Your task to perform on an android device: Show me recent news Image 0: 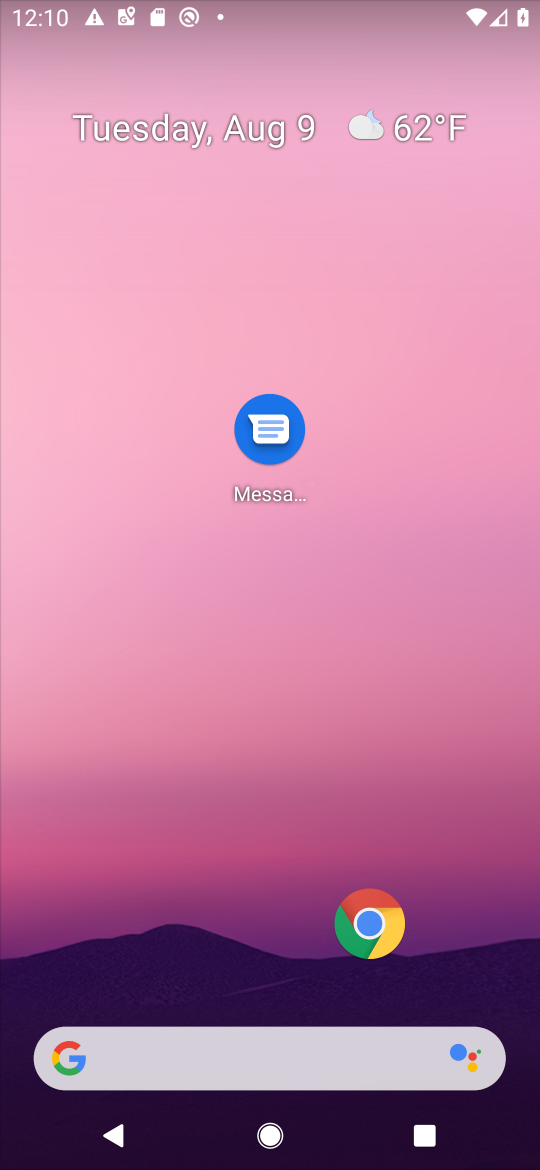
Step 0: click (186, 1062)
Your task to perform on an android device: Show me recent news Image 1: 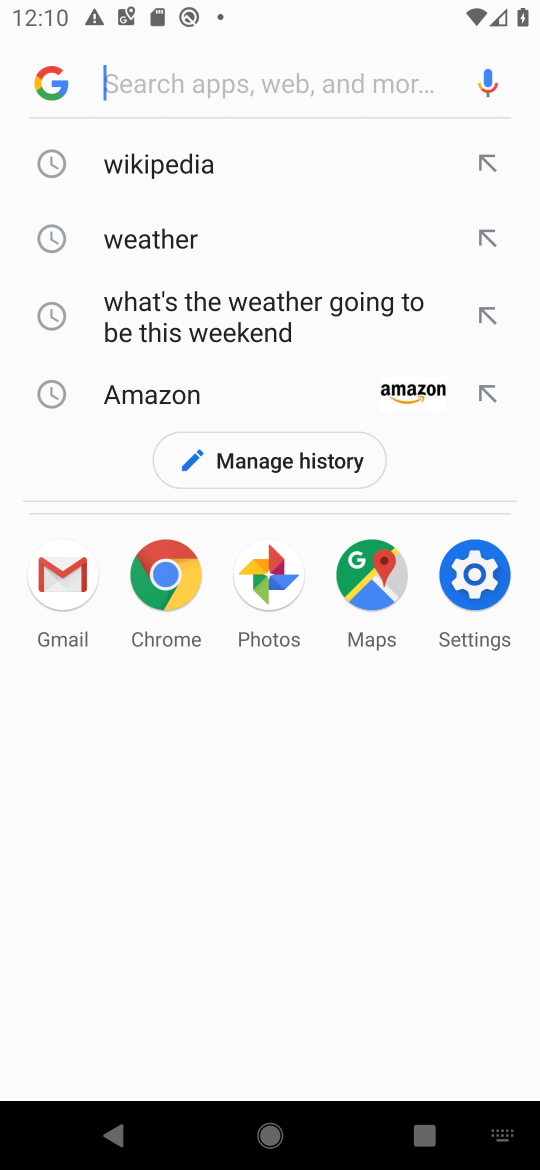
Step 1: type "Show me recent news"
Your task to perform on an android device: Show me recent news Image 2: 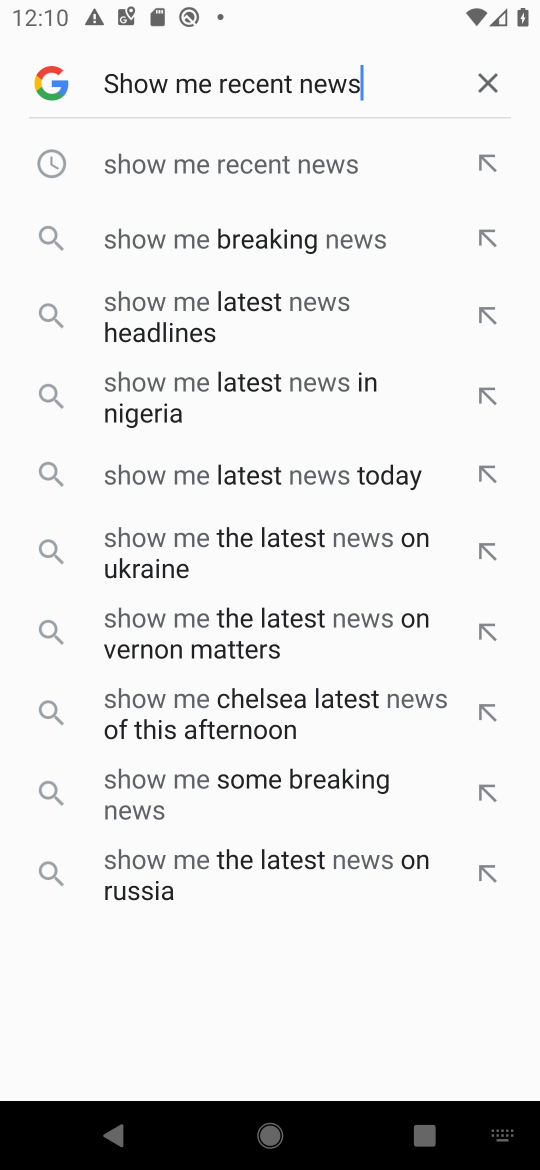
Step 2: click (232, 157)
Your task to perform on an android device: Show me recent news Image 3: 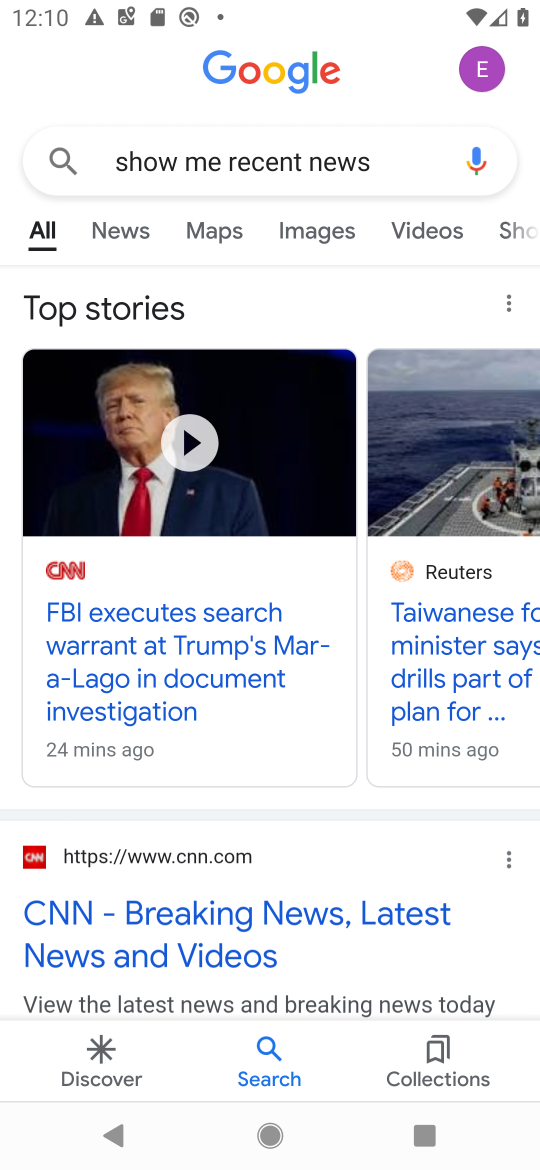
Step 3: task complete